Your task to perform on an android device: Open Google Maps Image 0: 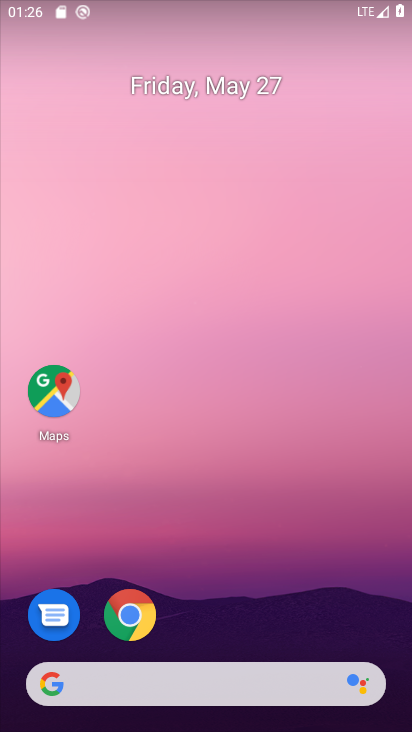
Step 0: drag from (374, 615) to (372, 298)
Your task to perform on an android device: Open Google Maps Image 1: 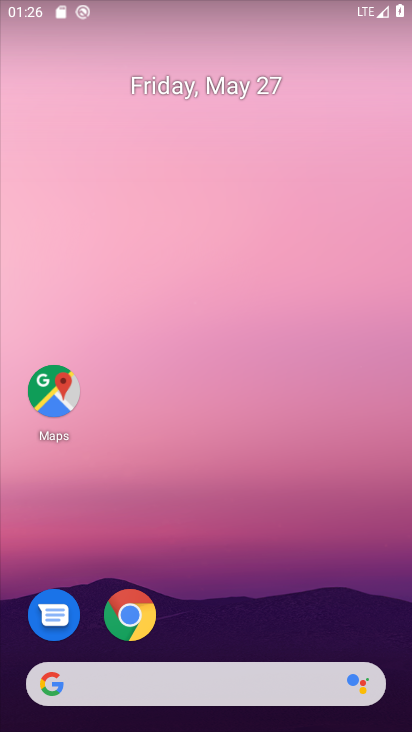
Step 1: drag from (363, 622) to (386, 262)
Your task to perform on an android device: Open Google Maps Image 2: 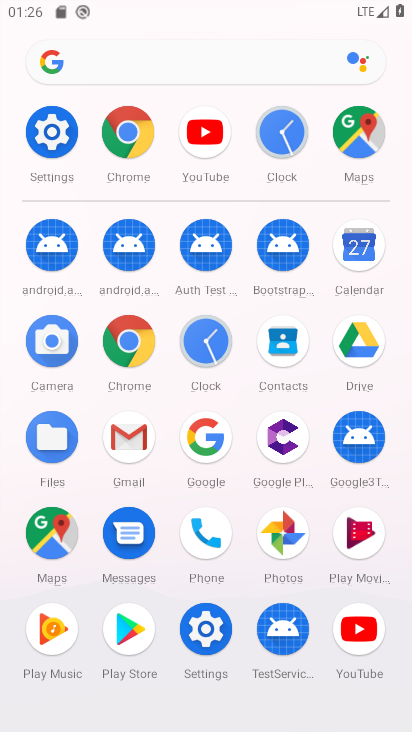
Step 2: click (67, 545)
Your task to perform on an android device: Open Google Maps Image 3: 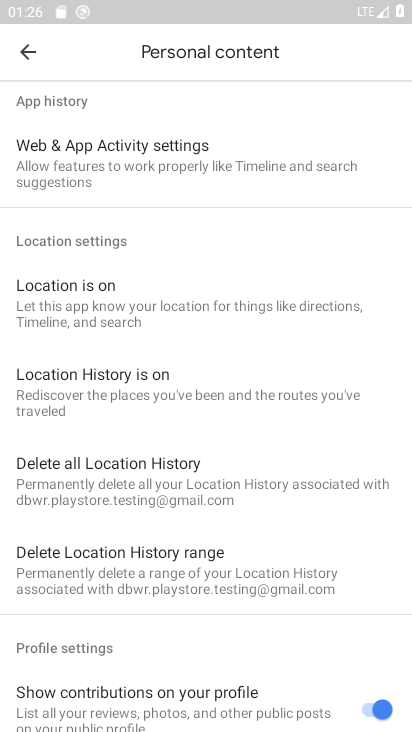
Step 3: click (14, 59)
Your task to perform on an android device: Open Google Maps Image 4: 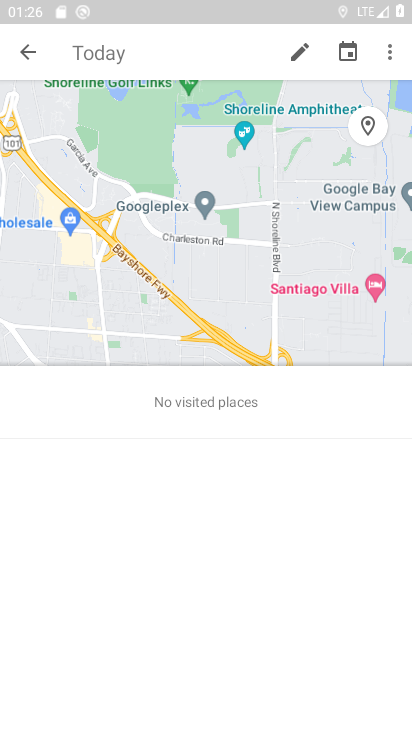
Step 4: click (20, 44)
Your task to perform on an android device: Open Google Maps Image 5: 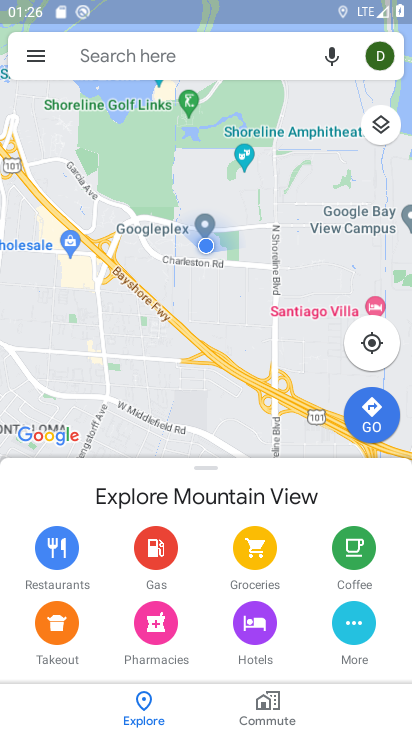
Step 5: task complete